Your task to perform on an android device: toggle javascript in the chrome app Image 0: 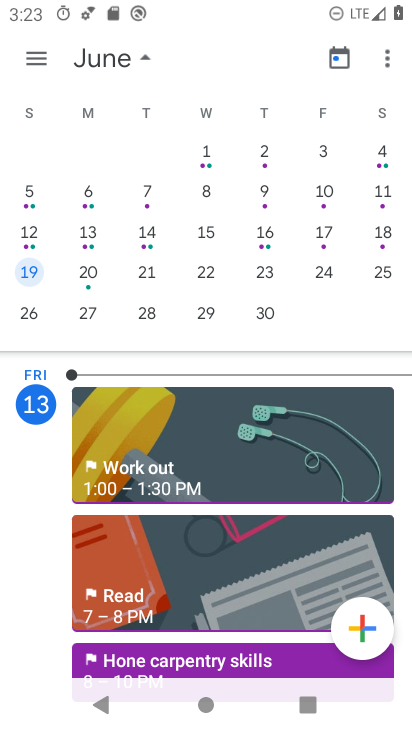
Step 0: press home button
Your task to perform on an android device: toggle javascript in the chrome app Image 1: 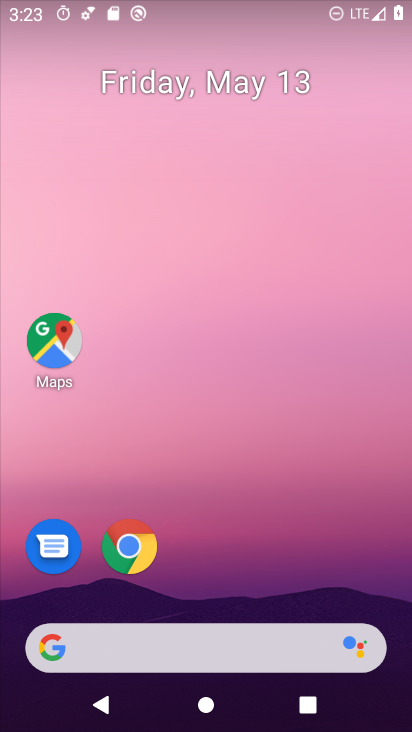
Step 1: drag from (260, 570) to (247, 275)
Your task to perform on an android device: toggle javascript in the chrome app Image 2: 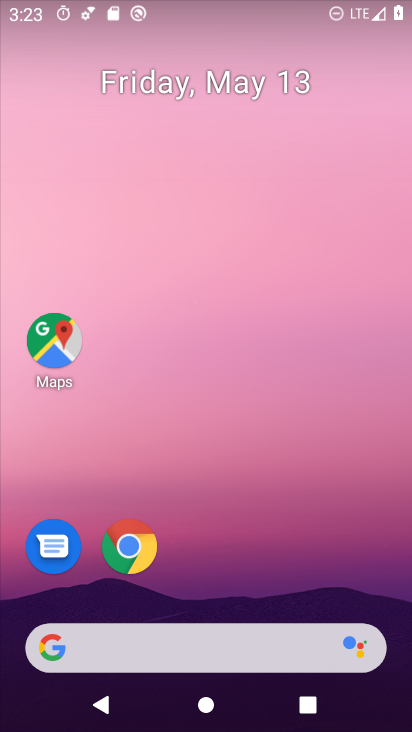
Step 2: click (142, 552)
Your task to perform on an android device: toggle javascript in the chrome app Image 3: 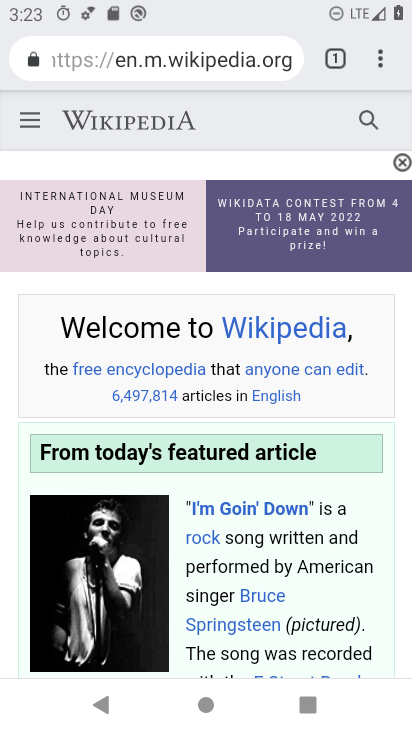
Step 3: click (382, 57)
Your task to perform on an android device: toggle javascript in the chrome app Image 4: 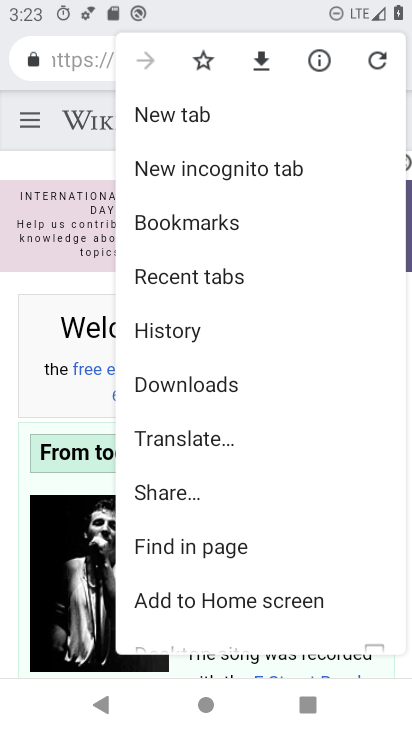
Step 4: drag from (199, 544) to (255, 191)
Your task to perform on an android device: toggle javascript in the chrome app Image 5: 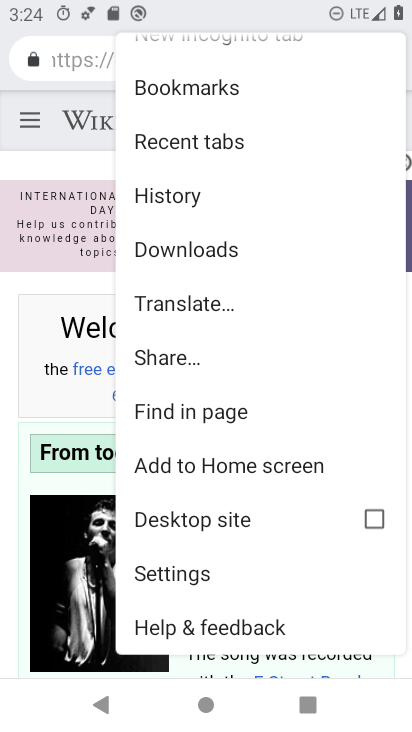
Step 5: click (220, 587)
Your task to perform on an android device: toggle javascript in the chrome app Image 6: 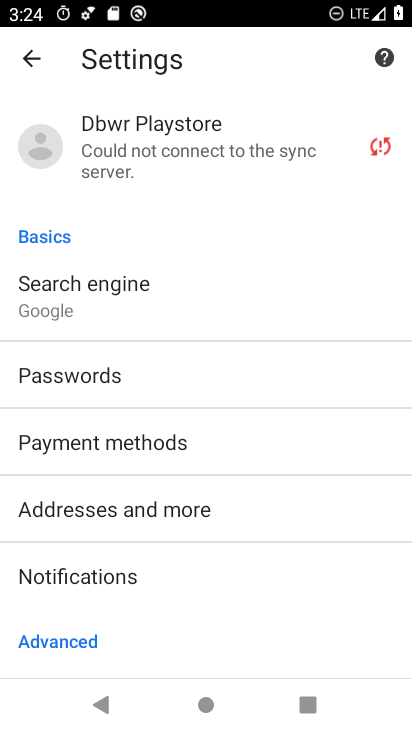
Step 6: drag from (155, 529) to (205, 218)
Your task to perform on an android device: toggle javascript in the chrome app Image 7: 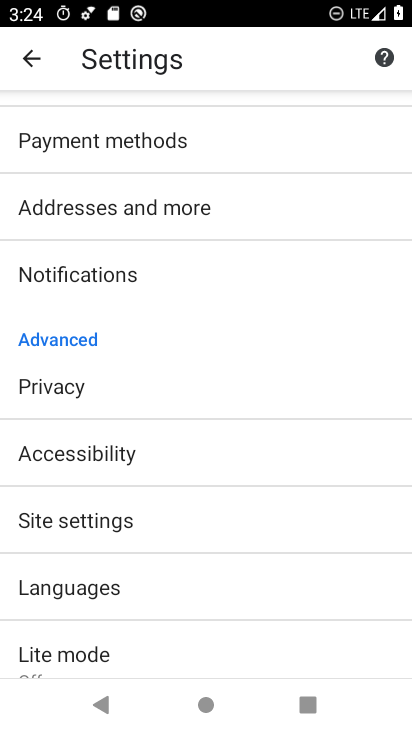
Step 7: click (175, 495)
Your task to perform on an android device: toggle javascript in the chrome app Image 8: 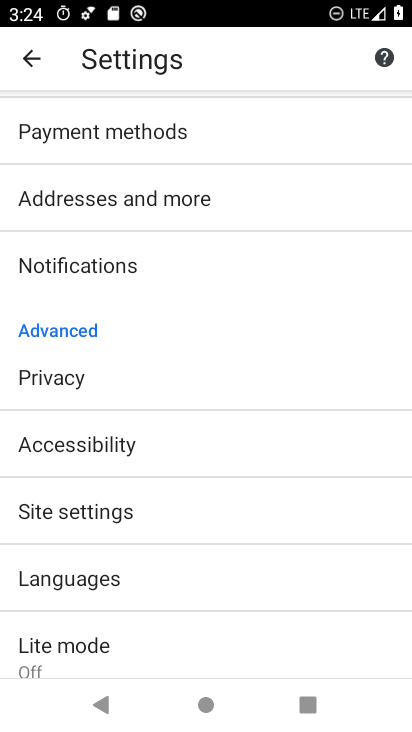
Step 8: click (149, 518)
Your task to perform on an android device: toggle javascript in the chrome app Image 9: 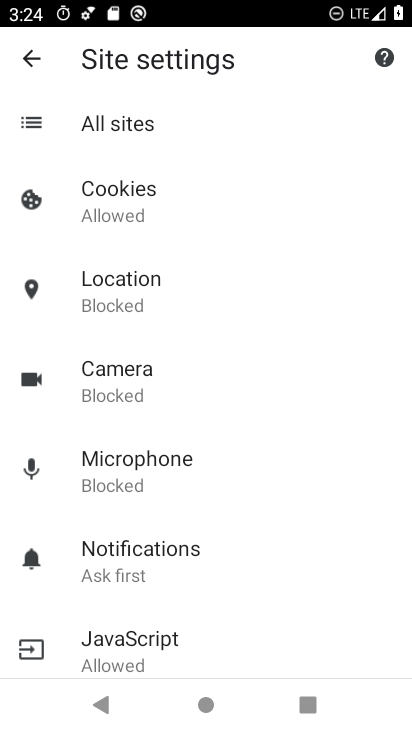
Step 9: click (172, 631)
Your task to perform on an android device: toggle javascript in the chrome app Image 10: 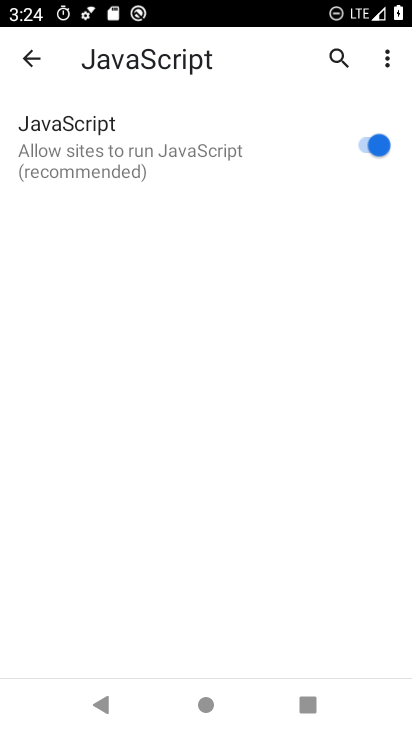
Step 10: click (370, 144)
Your task to perform on an android device: toggle javascript in the chrome app Image 11: 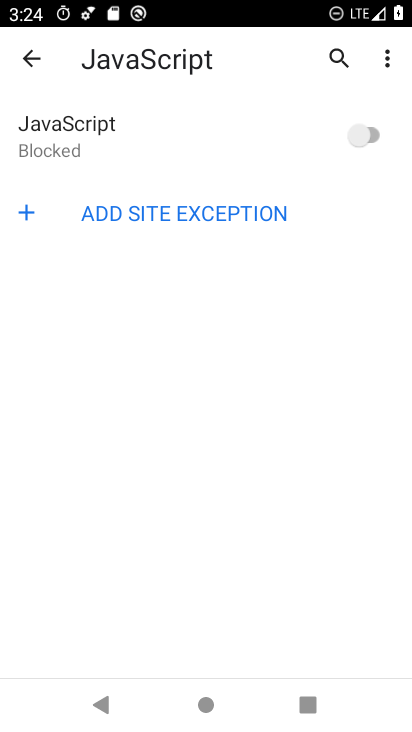
Step 11: task complete